Your task to perform on an android device: add a contact Image 0: 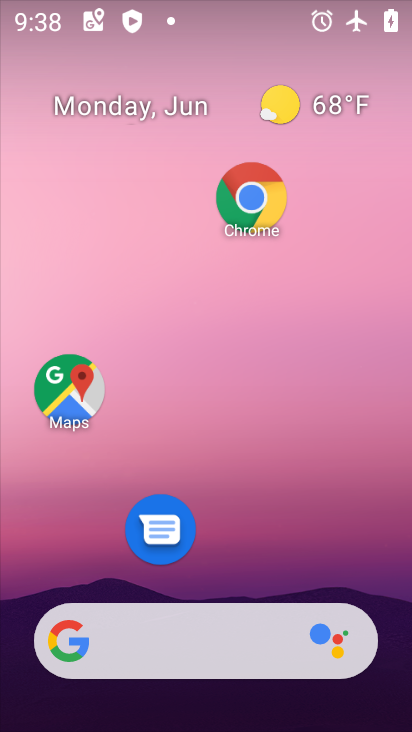
Step 0: drag from (222, 567) to (191, 104)
Your task to perform on an android device: add a contact Image 1: 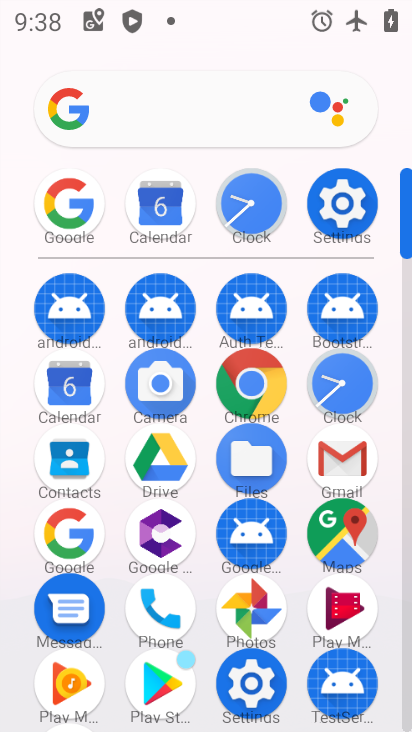
Step 1: click (73, 474)
Your task to perform on an android device: add a contact Image 2: 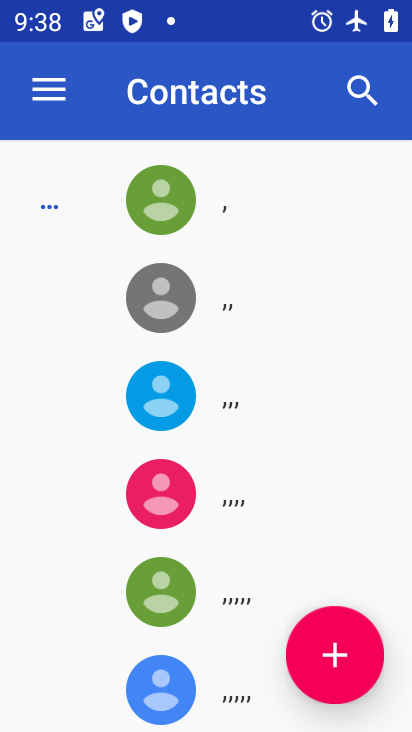
Step 2: click (336, 631)
Your task to perform on an android device: add a contact Image 3: 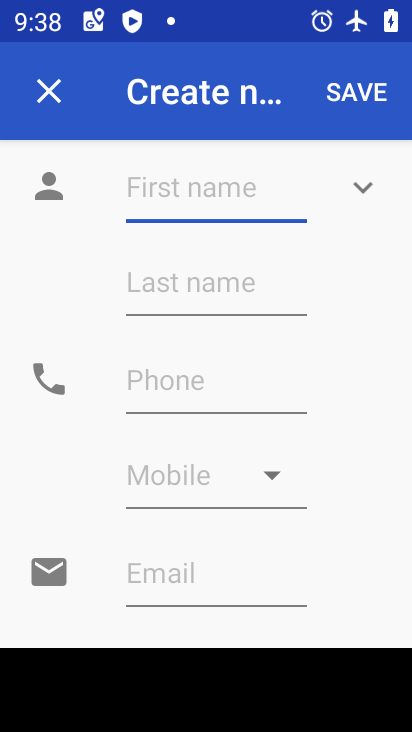
Step 3: type "dfjgdfn"
Your task to perform on an android device: add a contact Image 4: 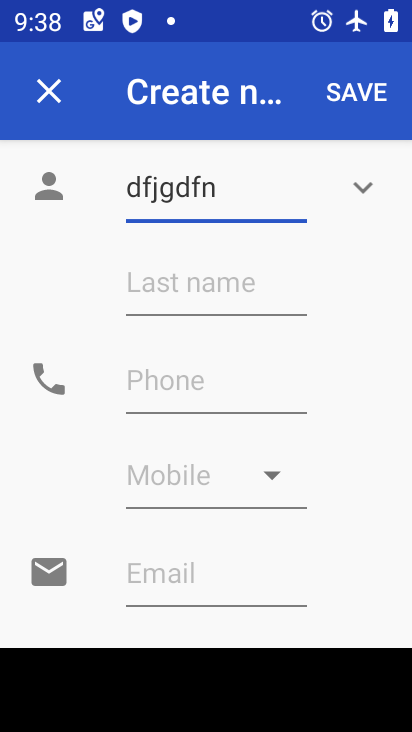
Step 4: click (183, 373)
Your task to perform on an android device: add a contact Image 5: 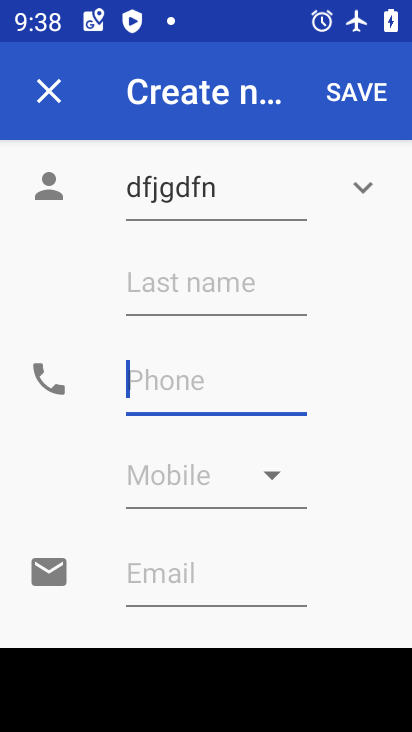
Step 5: type "9768686865"
Your task to perform on an android device: add a contact Image 6: 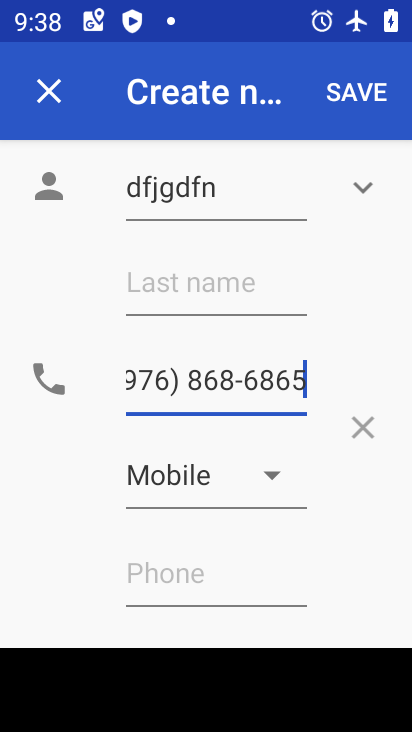
Step 6: click (341, 91)
Your task to perform on an android device: add a contact Image 7: 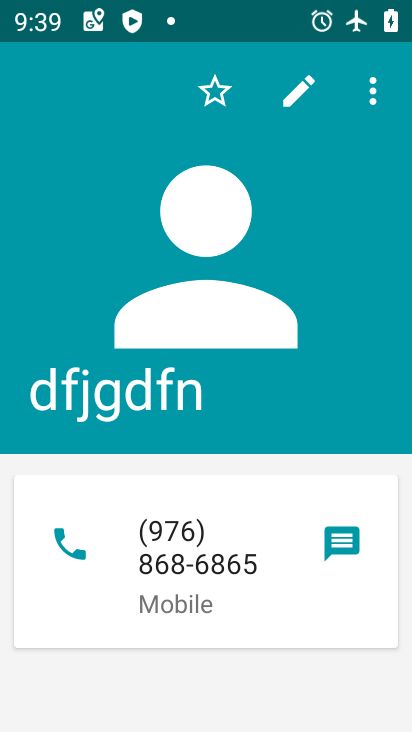
Step 7: task complete